Your task to perform on an android device: Do I have any events today? Image 0: 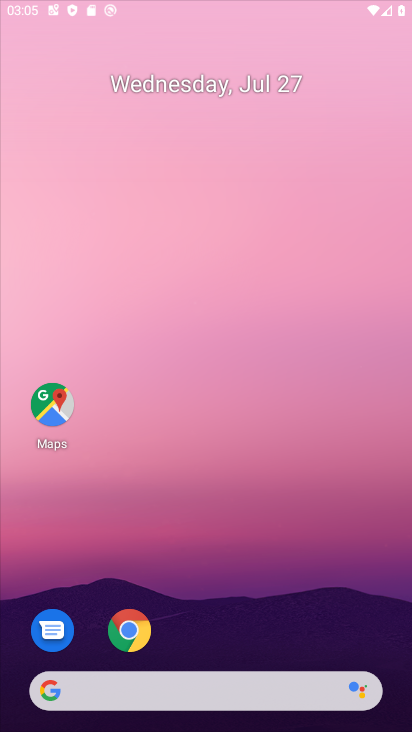
Step 0: click (212, 90)
Your task to perform on an android device: Do I have any events today? Image 1: 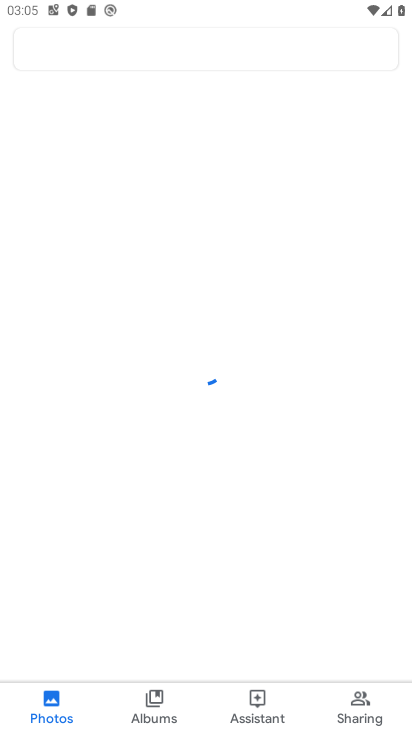
Step 1: press back button
Your task to perform on an android device: Do I have any events today? Image 2: 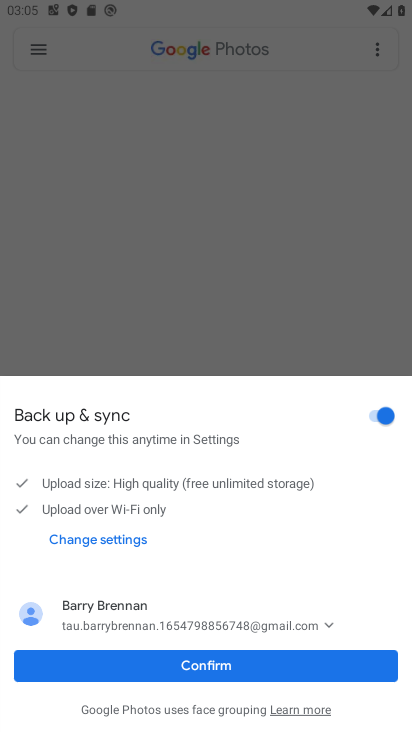
Step 2: press back button
Your task to perform on an android device: Do I have any events today? Image 3: 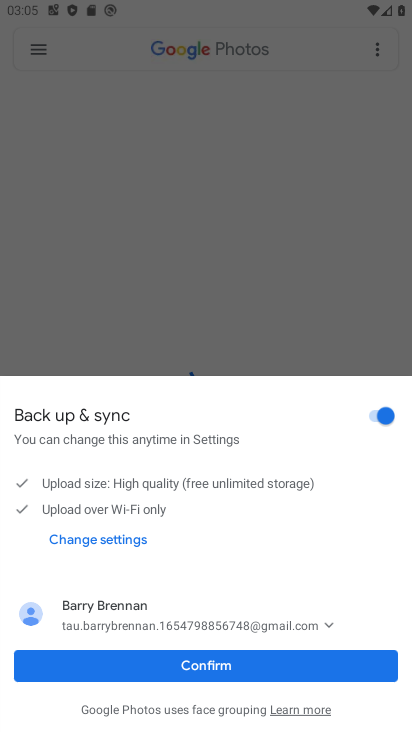
Step 3: click (266, 332)
Your task to perform on an android device: Do I have any events today? Image 4: 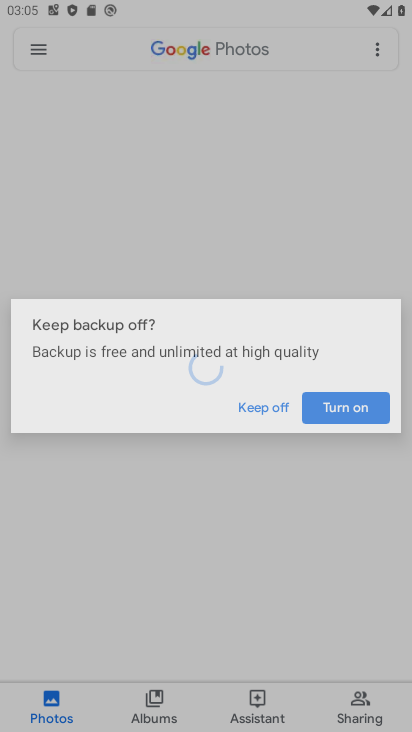
Step 4: click (246, 668)
Your task to perform on an android device: Do I have any events today? Image 5: 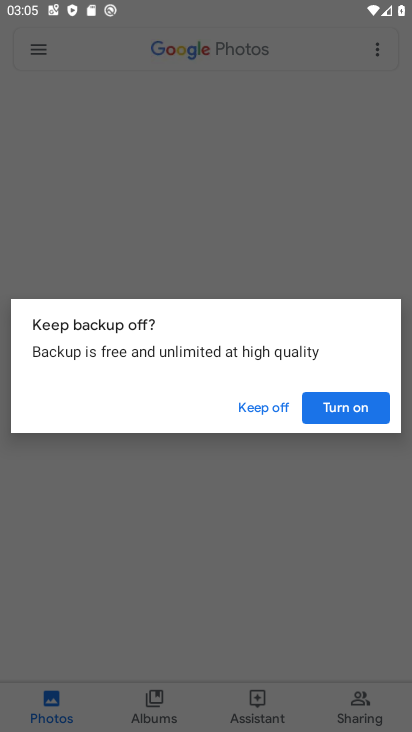
Step 5: click (167, 194)
Your task to perform on an android device: Do I have any events today? Image 6: 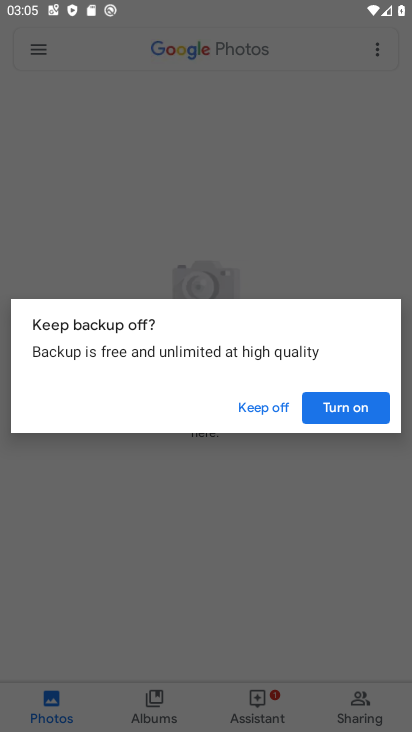
Step 6: click (259, 416)
Your task to perform on an android device: Do I have any events today? Image 7: 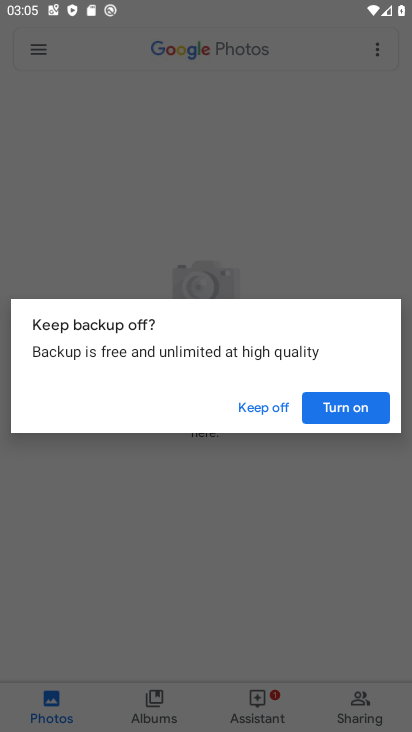
Step 7: click (259, 416)
Your task to perform on an android device: Do I have any events today? Image 8: 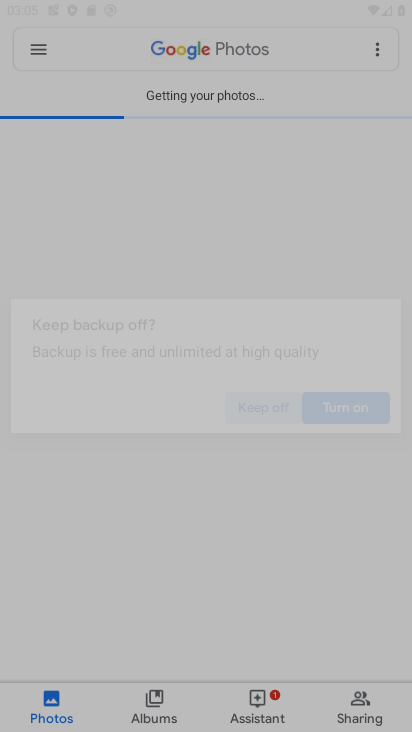
Step 8: click (259, 416)
Your task to perform on an android device: Do I have any events today? Image 9: 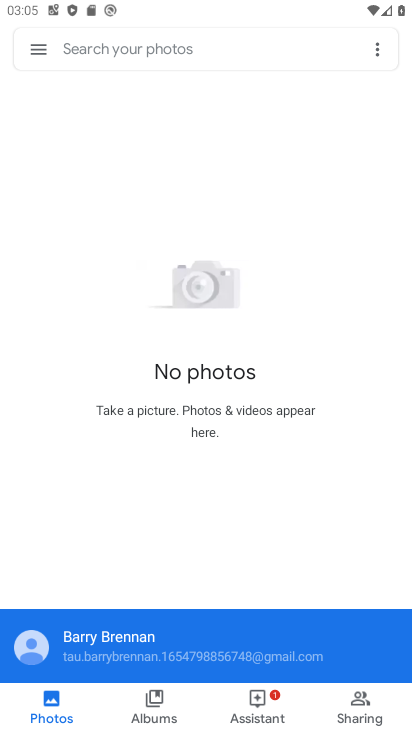
Step 9: press back button
Your task to perform on an android device: Do I have any events today? Image 10: 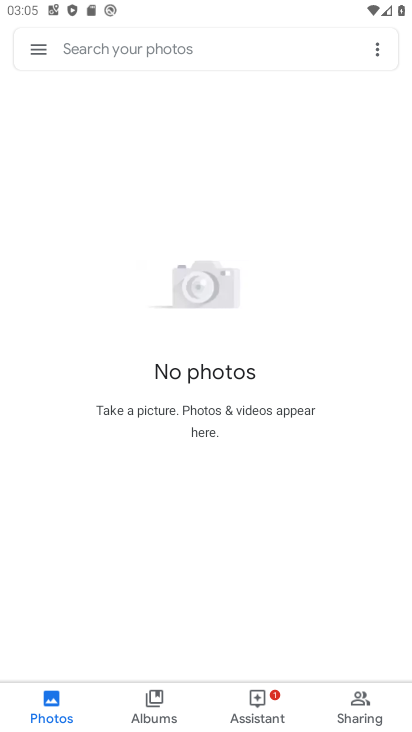
Step 10: press back button
Your task to perform on an android device: Do I have any events today? Image 11: 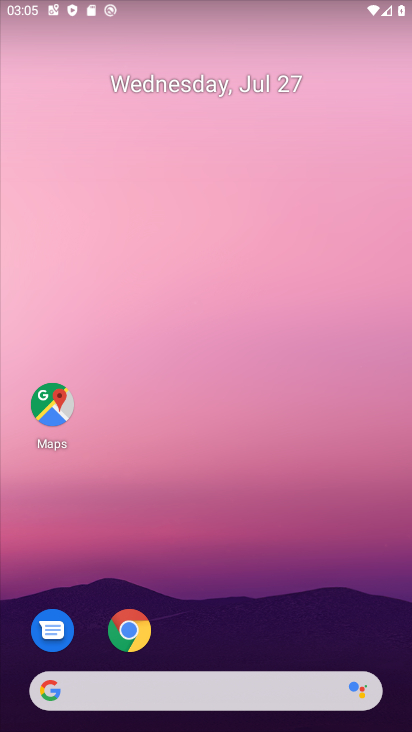
Step 11: drag from (236, 567) to (214, 120)
Your task to perform on an android device: Do I have any events today? Image 12: 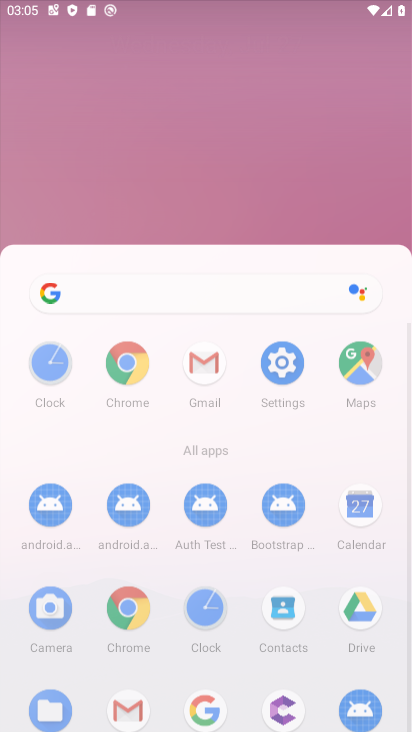
Step 12: click (253, 146)
Your task to perform on an android device: Do I have any events today? Image 13: 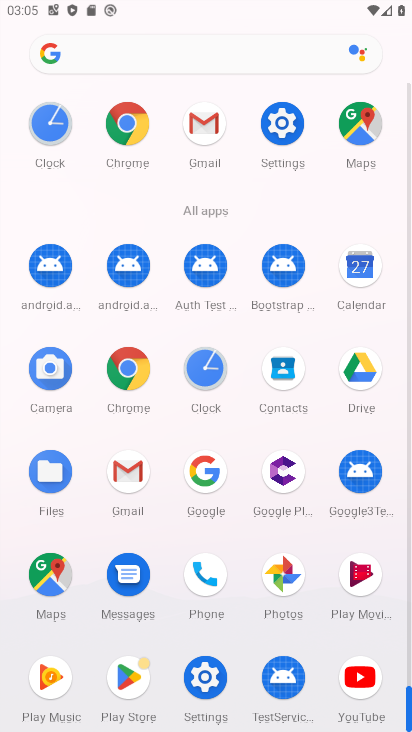
Step 13: drag from (233, 479) to (188, 92)
Your task to perform on an android device: Do I have any events today? Image 14: 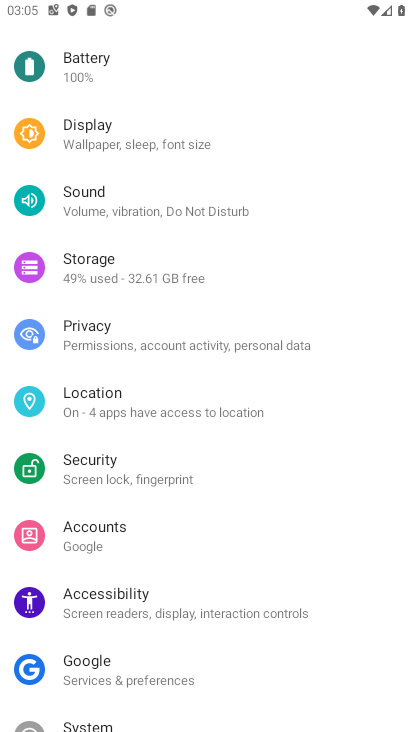
Step 14: press back button
Your task to perform on an android device: Do I have any events today? Image 15: 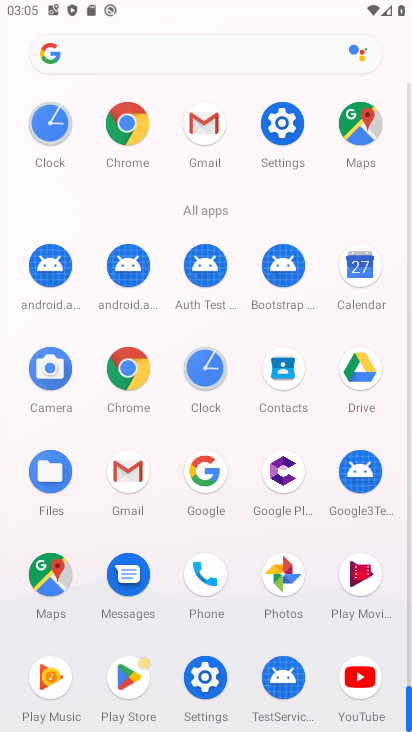
Step 15: press back button
Your task to perform on an android device: Do I have any events today? Image 16: 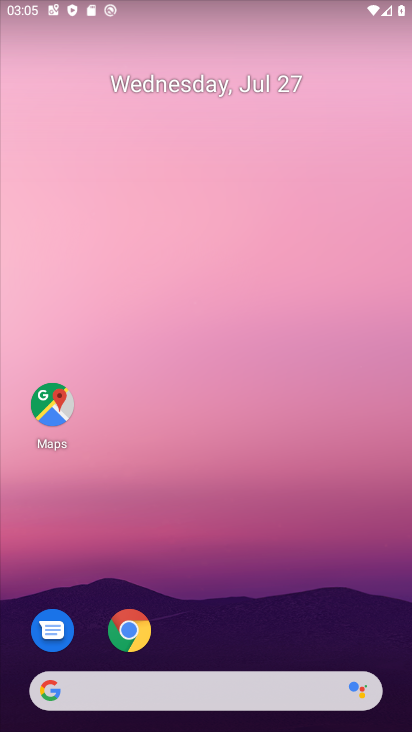
Step 16: drag from (278, 605) to (217, 12)
Your task to perform on an android device: Do I have any events today? Image 17: 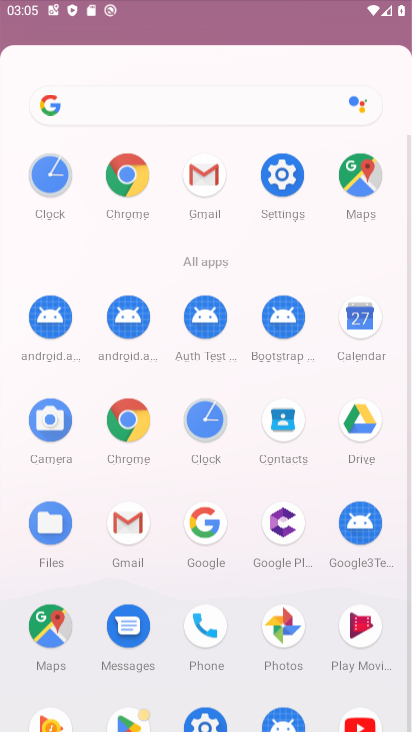
Step 17: drag from (318, 469) to (235, 7)
Your task to perform on an android device: Do I have any events today? Image 18: 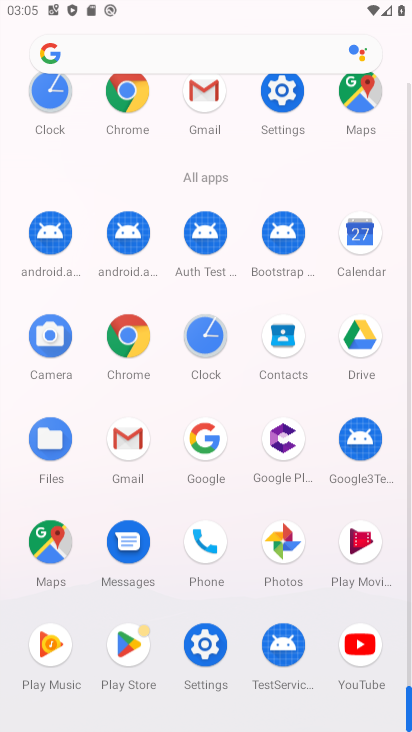
Step 18: drag from (198, 328) to (157, 117)
Your task to perform on an android device: Do I have any events today? Image 19: 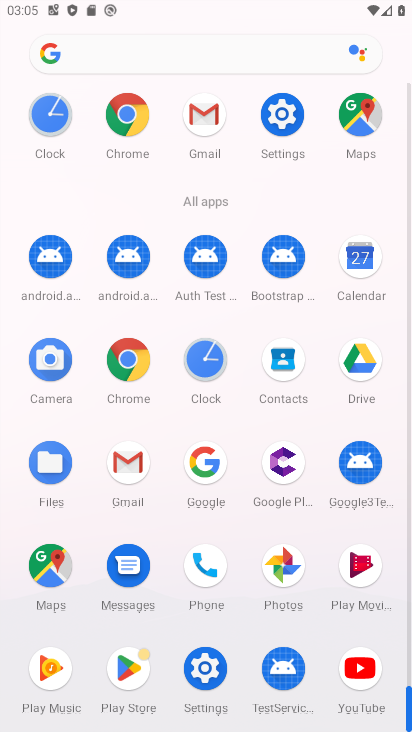
Step 19: click (361, 256)
Your task to perform on an android device: Do I have any events today? Image 20: 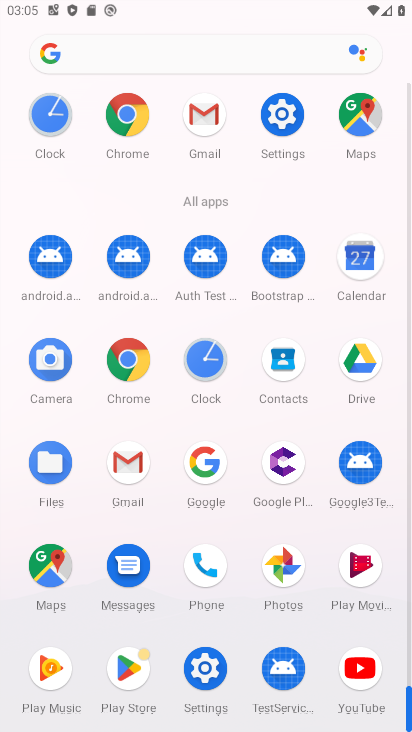
Step 20: click (361, 256)
Your task to perform on an android device: Do I have any events today? Image 21: 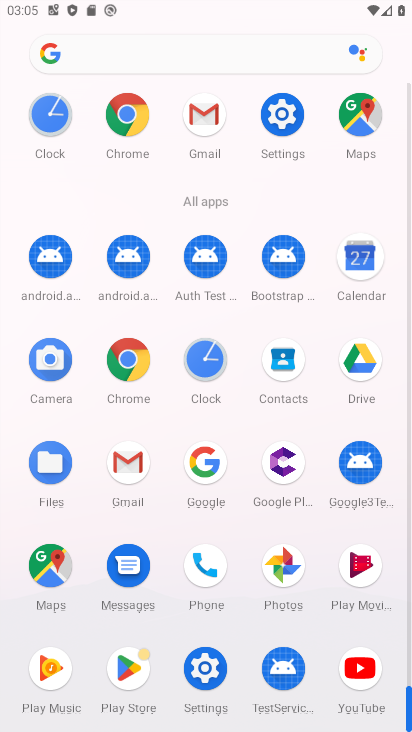
Step 21: click (362, 255)
Your task to perform on an android device: Do I have any events today? Image 22: 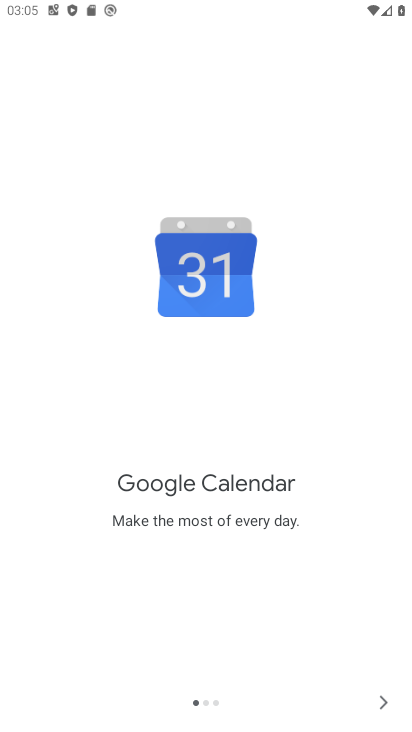
Step 22: click (380, 698)
Your task to perform on an android device: Do I have any events today? Image 23: 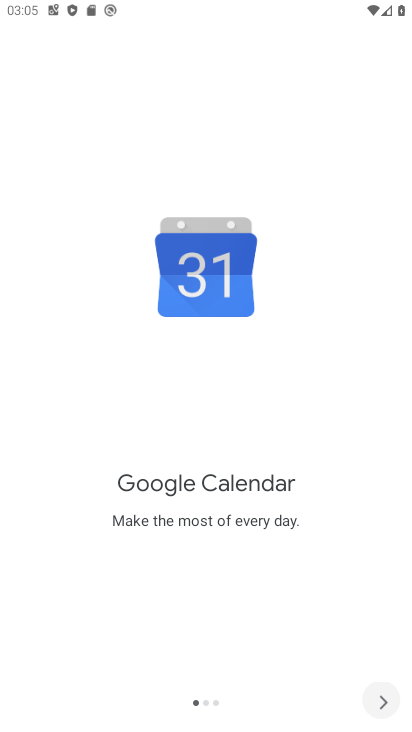
Step 23: click (380, 698)
Your task to perform on an android device: Do I have any events today? Image 24: 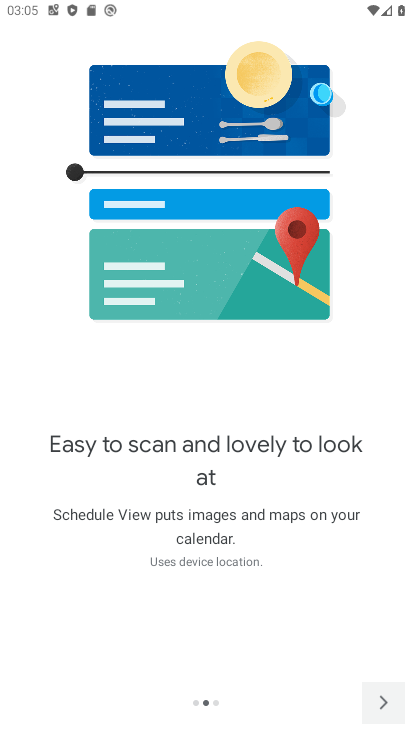
Step 24: click (382, 701)
Your task to perform on an android device: Do I have any events today? Image 25: 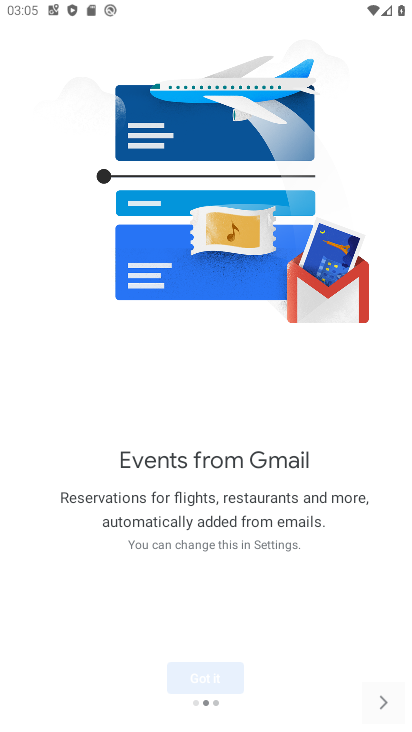
Step 25: click (383, 702)
Your task to perform on an android device: Do I have any events today? Image 26: 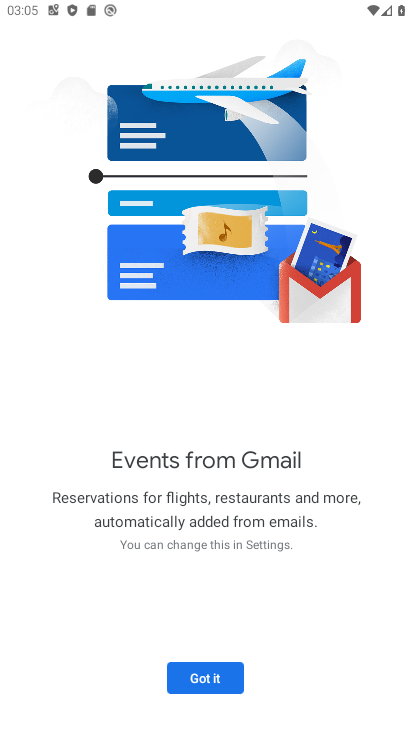
Step 26: click (209, 690)
Your task to perform on an android device: Do I have any events today? Image 27: 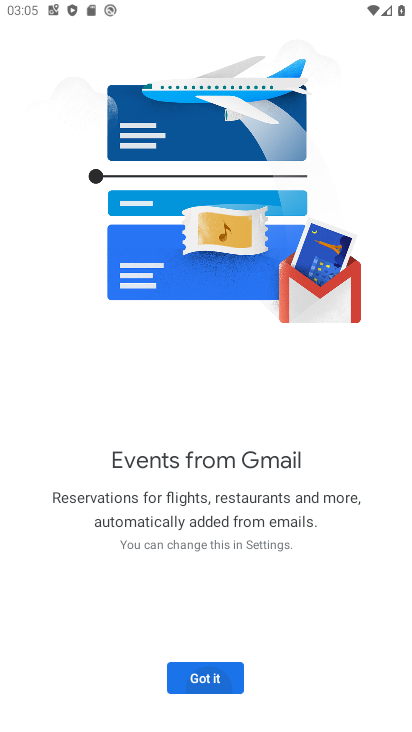
Step 27: click (209, 689)
Your task to perform on an android device: Do I have any events today? Image 28: 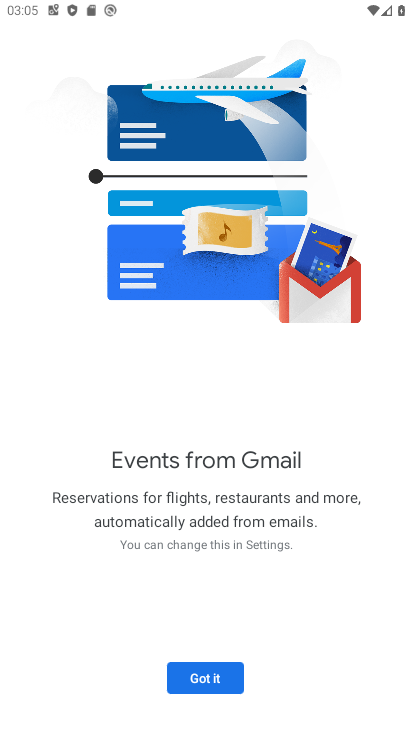
Step 28: click (209, 689)
Your task to perform on an android device: Do I have any events today? Image 29: 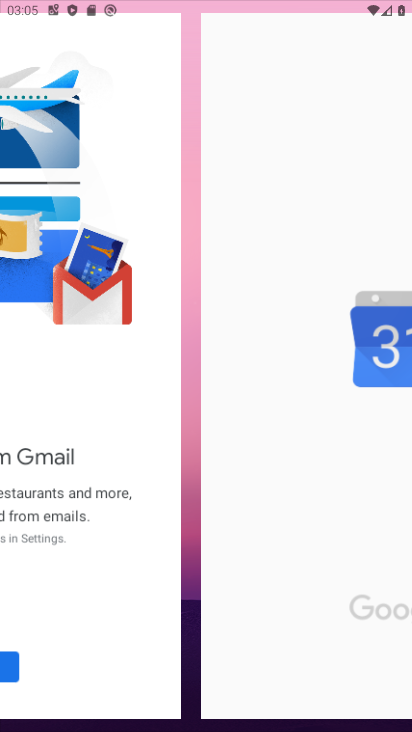
Step 29: click (209, 688)
Your task to perform on an android device: Do I have any events today? Image 30: 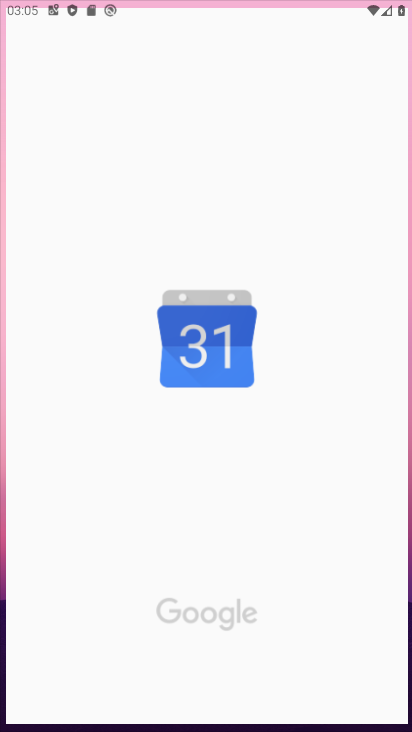
Step 30: click (210, 685)
Your task to perform on an android device: Do I have any events today? Image 31: 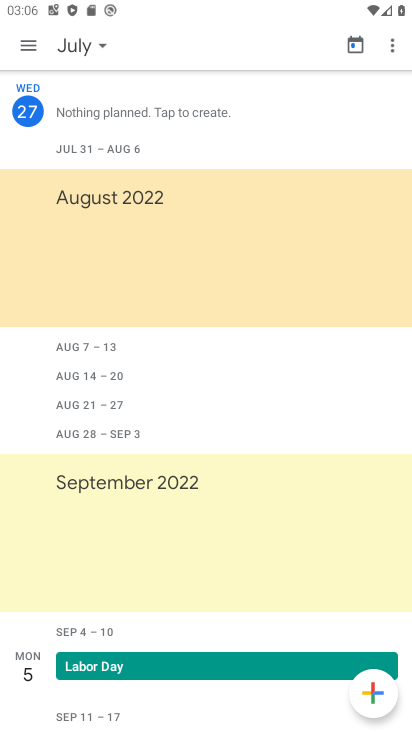
Step 31: click (103, 45)
Your task to perform on an android device: Do I have any events today? Image 32: 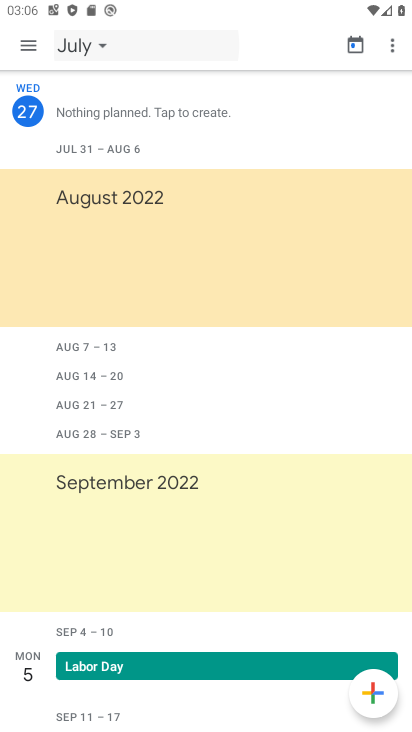
Step 32: click (100, 39)
Your task to perform on an android device: Do I have any events today? Image 33: 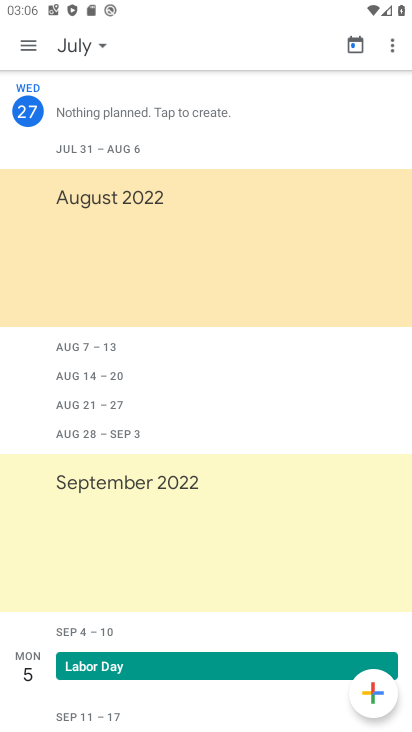
Step 33: click (98, 45)
Your task to perform on an android device: Do I have any events today? Image 34: 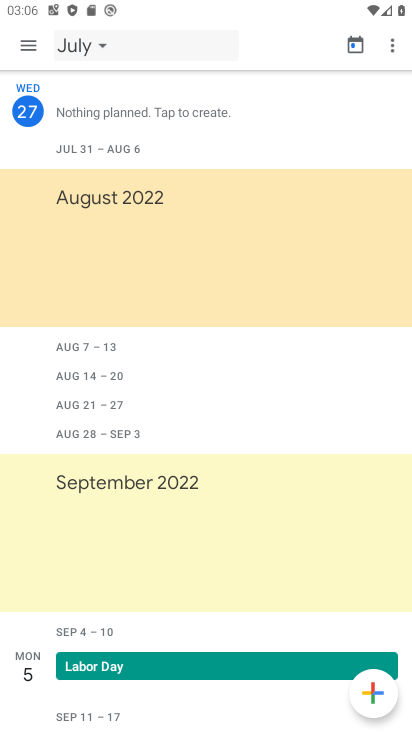
Step 34: click (96, 40)
Your task to perform on an android device: Do I have any events today? Image 35: 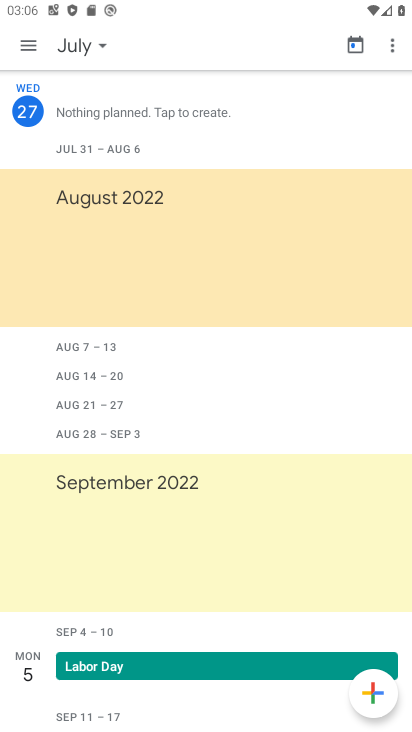
Step 35: click (104, 41)
Your task to perform on an android device: Do I have any events today? Image 36: 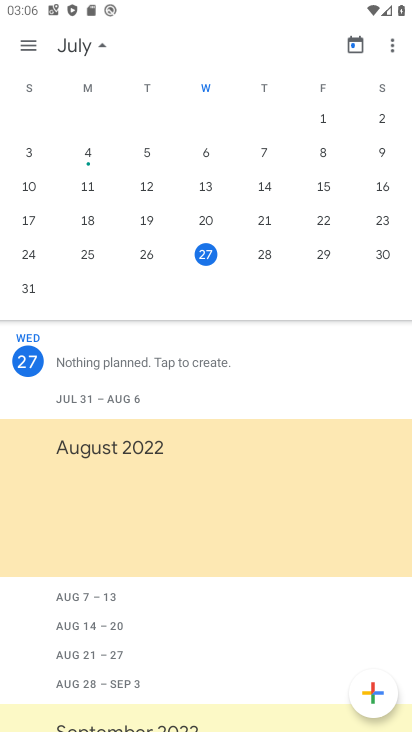
Step 36: click (209, 261)
Your task to perform on an android device: Do I have any events today? Image 37: 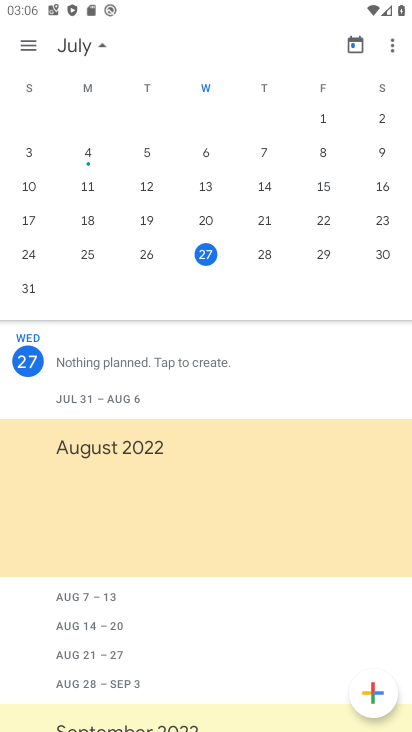
Step 37: task complete